Your task to perform on an android device: turn on wifi Image 0: 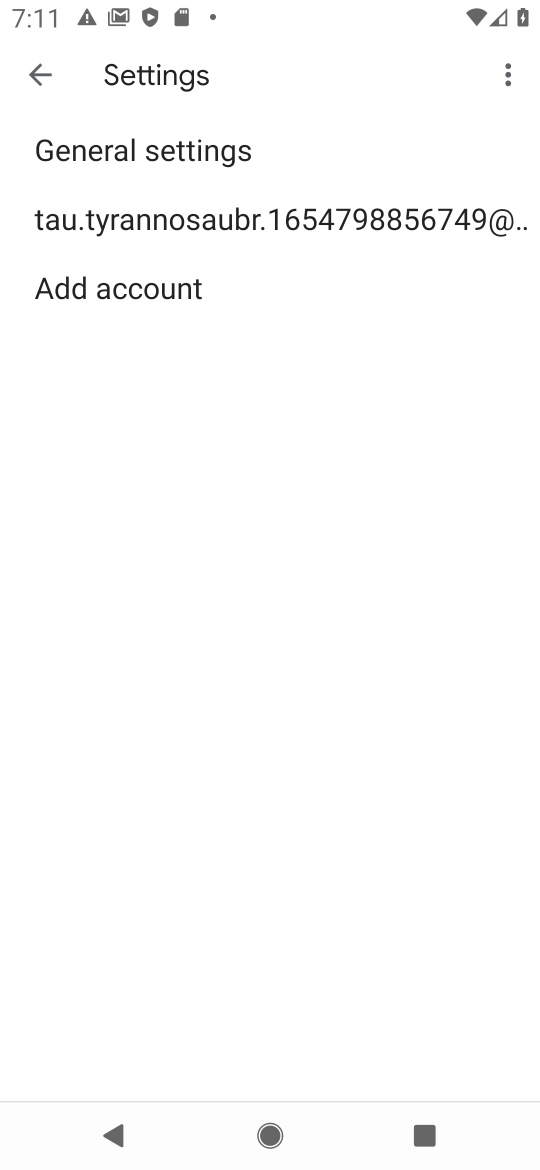
Step 0: press home button
Your task to perform on an android device: turn on wifi Image 1: 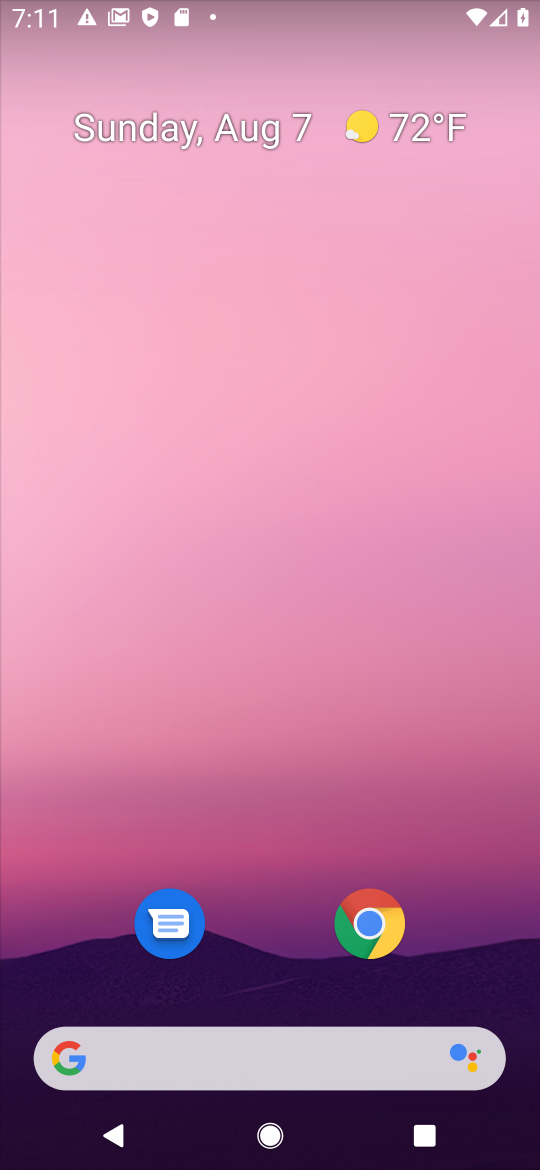
Step 1: task complete